Your task to perform on an android device: open chrome privacy settings Image 0: 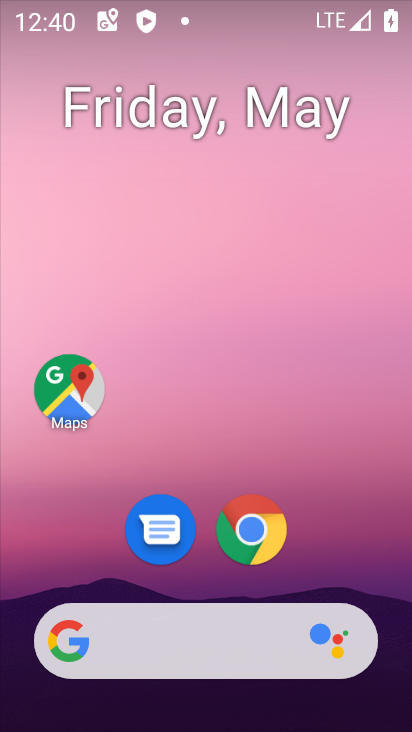
Step 0: click (279, 535)
Your task to perform on an android device: open chrome privacy settings Image 1: 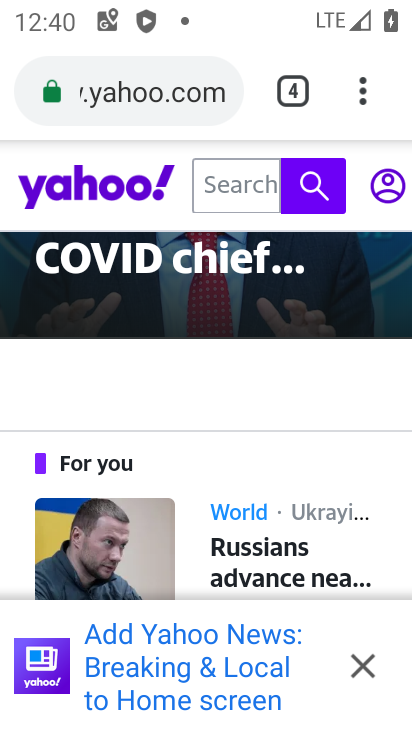
Step 1: click (373, 88)
Your task to perform on an android device: open chrome privacy settings Image 2: 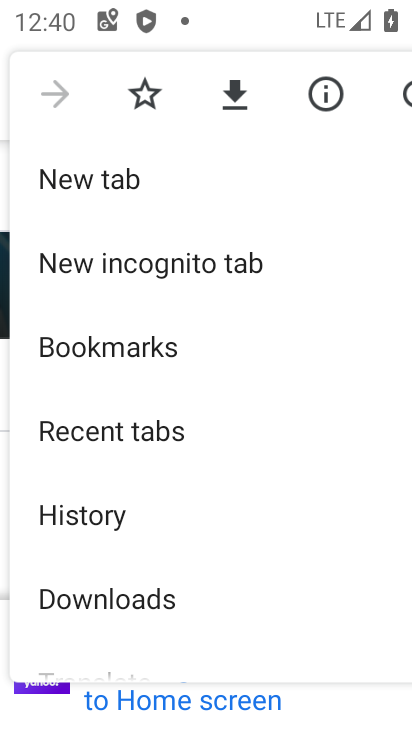
Step 2: drag from (144, 630) to (182, 242)
Your task to perform on an android device: open chrome privacy settings Image 3: 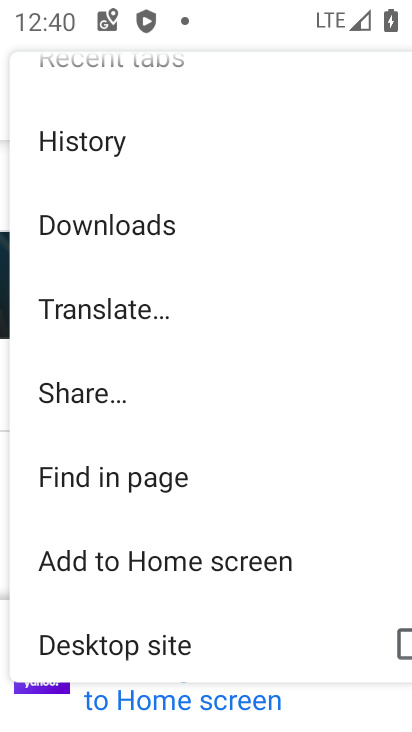
Step 3: drag from (184, 616) to (172, 270)
Your task to perform on an android device: open chrome privacy settings Image 4: 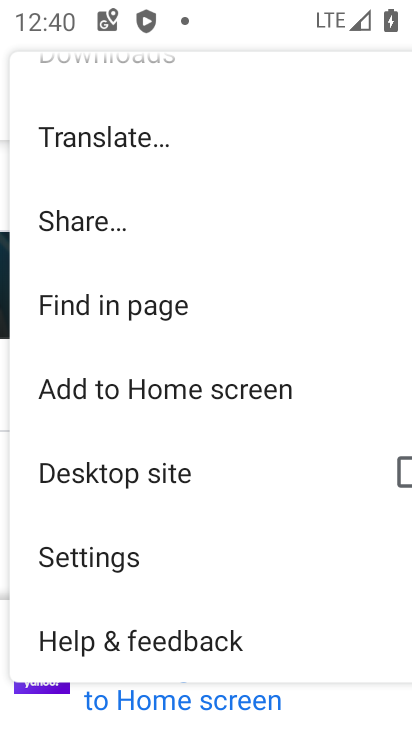
Step 4: click (94, 561)
Your task to perform on an android device: open chrome privacy settings Image 5: 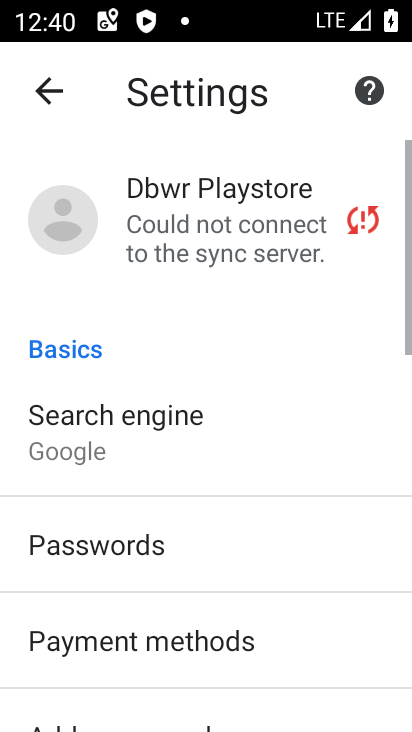
Step 5: drag from (95, 519) to (155, 193)
Your task to perform on an android device: open chrome privacy settings Image 6: 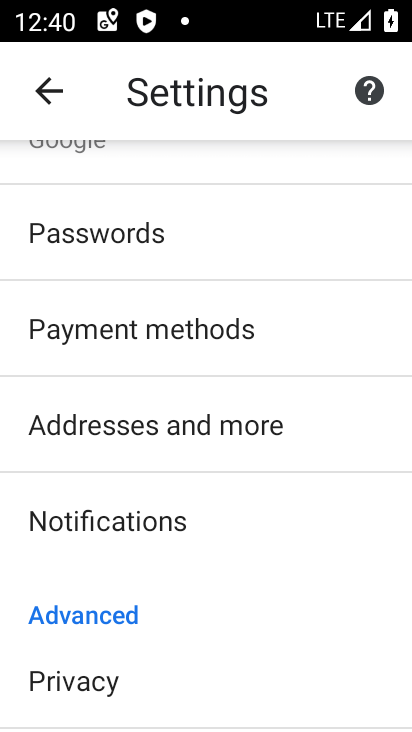
Step 6: click (78, 686)
Your task to perform on an android device: open chrome privacy settings Image 7: 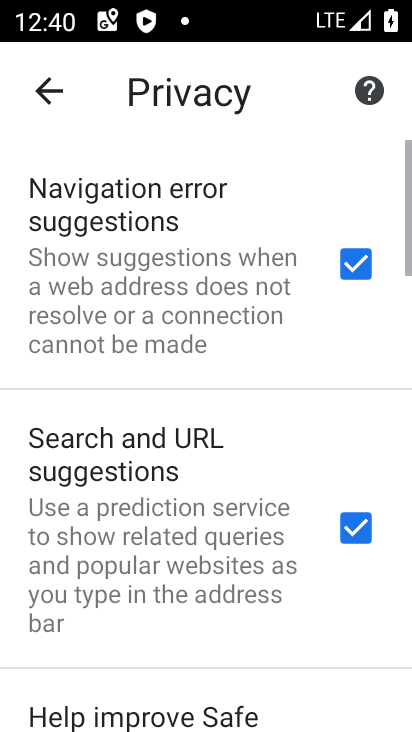
Step 7: task complete